Your task to perform on an android device: Find coffee shops on Maps Image 0: 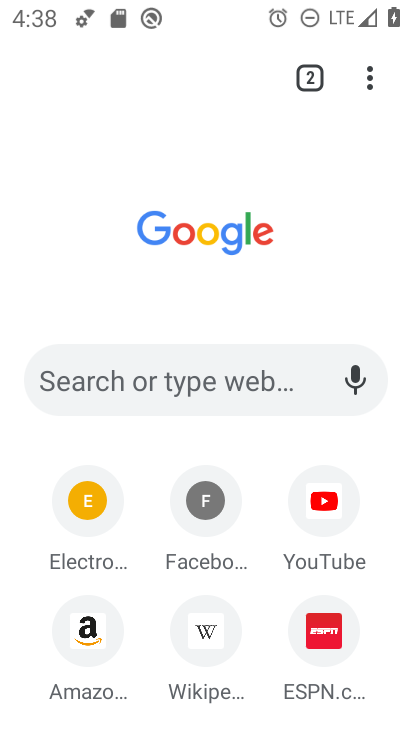
Step 0: press back button
Your task to perform on an android device: Find coffee shops on Maps Image 1: 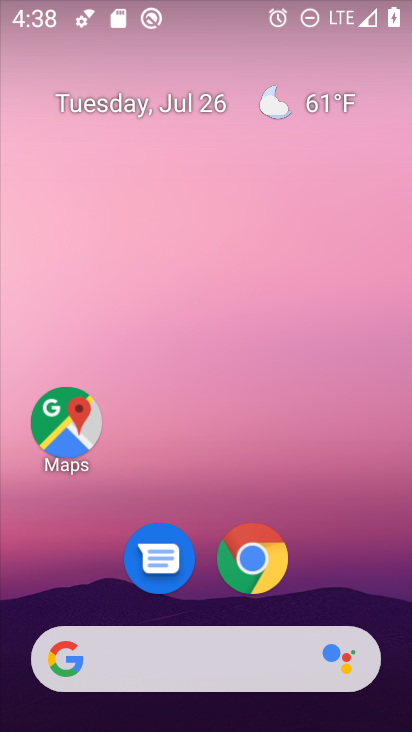
Step 1: click (67, 410)
Your task to perform on an android device: Find coffee shops on Maps Image 2: 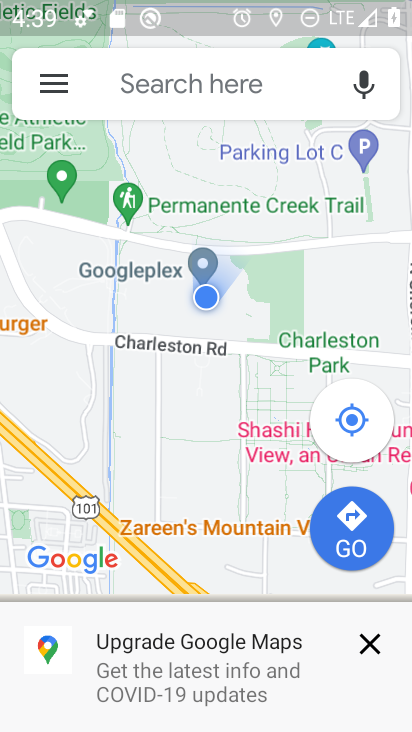
Step 2: click (171, 91)
Your task to perform on an android device: Find coffee shops on Maps Image 3: 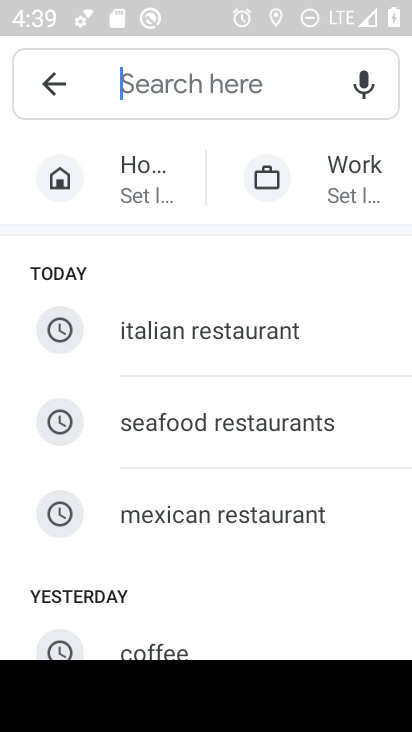
Step 3: type "coffee shops"
Your task to perform on an android device: Find coffee shops on Maps Image 4: 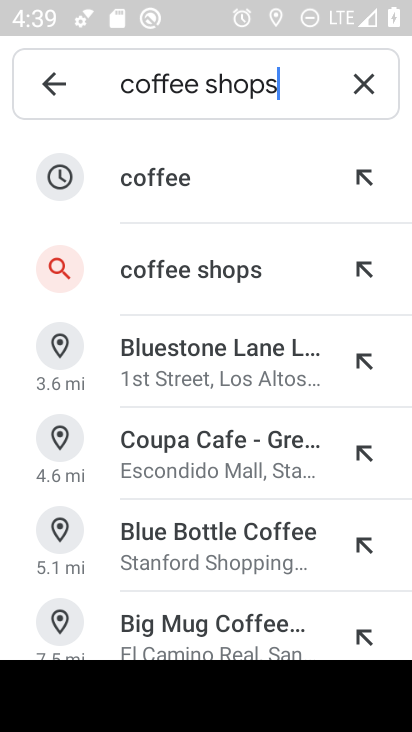
Step 4: click (174, 263)
Your task to perform on an android device: Find coffee shops on Maps Image 5: 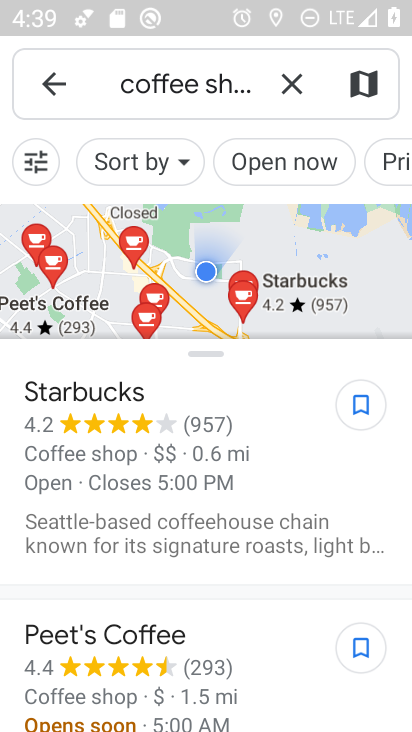
Step 5: task complete